Your task to perform on an android device: Search for "macbook" on ebay.com, select the first entry, add it to the cart, then select checkout. Image 0: 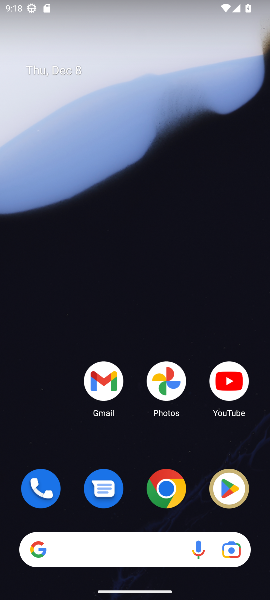
Step 0: drag from (115, 524) to (133, 135)
Your task to perform on an android device: Search for "macbook" on ebay.com, select the first entry, add it to the cart, then select checkout. Image 1: 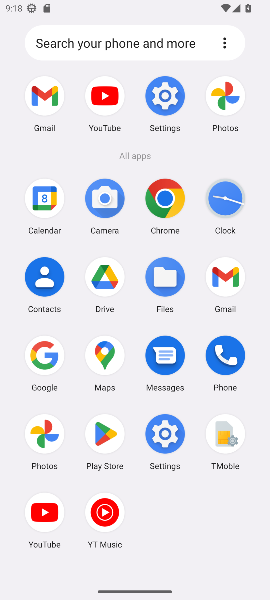
Step 1: click (42, 366)
Your task to perform on an android device: Search for "macbook" on ebay.com, select the first entry, add it to the cart, then select checkout. Image 2: 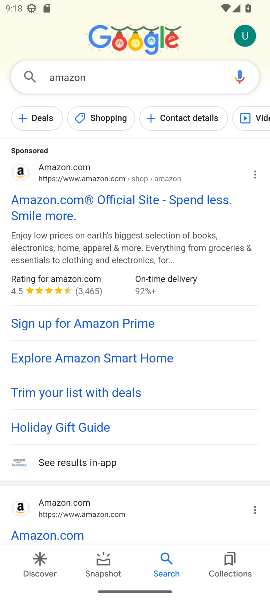
Step 2: click (85, 78)
Your task to perform on an android device: Search for "macbook" on ebay.com, select the first entry, add it to the cart, then select checkout. Image 3: 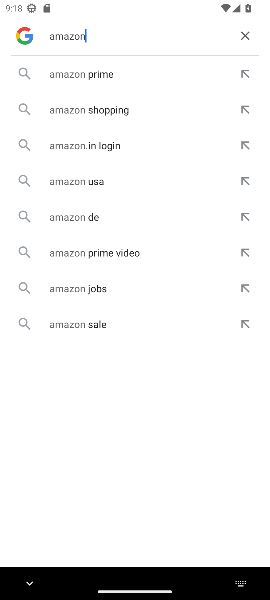
Step 3: click (248, 35)
Your task to perform on an android device: Search for "macbook" on ebay.com, select the first entry, add it to the cart, then select checkout. Image 4: 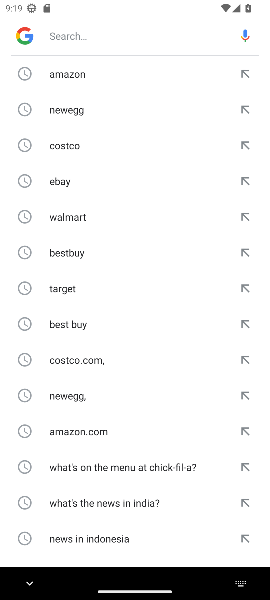
Step 4: click (60, 182)
Your task to perform on an android device: Search for "macbook" on ebay.com, select the first entry, add it to the cart, then select checkout. Image 5: 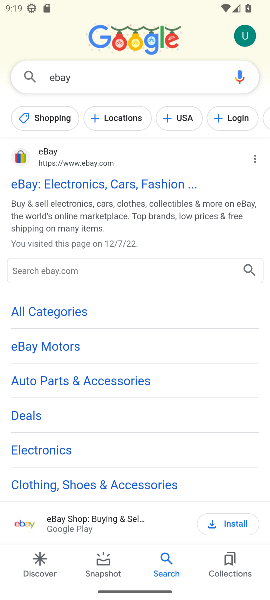
Step 5: click (65, 77)
Your task to perform on an android device: Search for "macbook" on ebay.com, select the first entry, add it to the cart, then select checkout. Image 6: 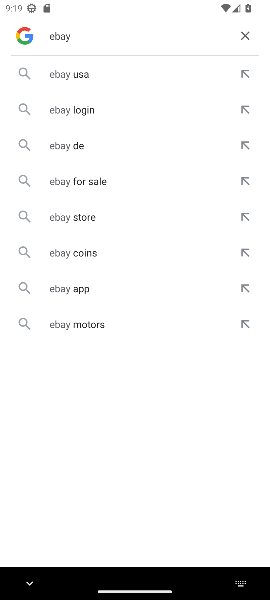
Step 6: click (245, 41)
Your task to perform on an android device: Search for "macbook" on ebay.com, select the first entry, add it to the cart, then select checkout. Image 7: 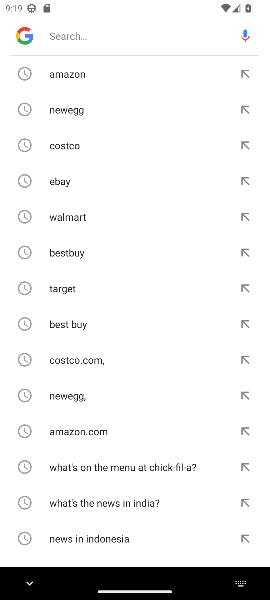
Step 7: click (62, 183)
Your task to perform on an android device: Search for "macbook" on ebay.com, select the first entry, add it to the cart, then select checkout. Image 8: 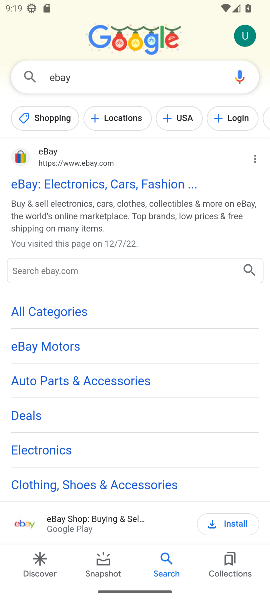
Step 8: click (62, 183)
Your task to perform on an android device: Search for "macbook" on ebay.com, select the first entry, add it to the cart, then select checkout. Image 9: 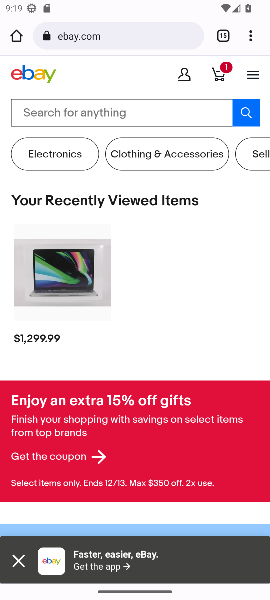
Step 9: click (62, 107)
Your task to perform on an android device: Search for "macbook" on ebay.com, select the first entry, add it to the cart, then select checkout. Image 10: 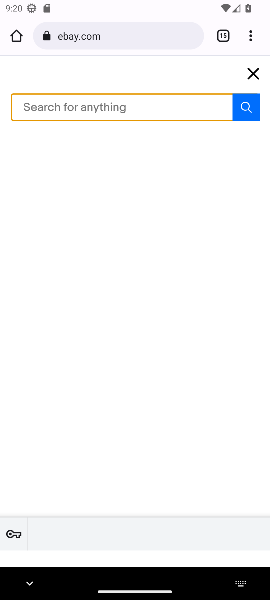
Step 10: type "macbook"
Your task to perform on an android device: Search for "macbook" on ebay.com, select the first entry, add it to the cart, then select checkout. Image 11: 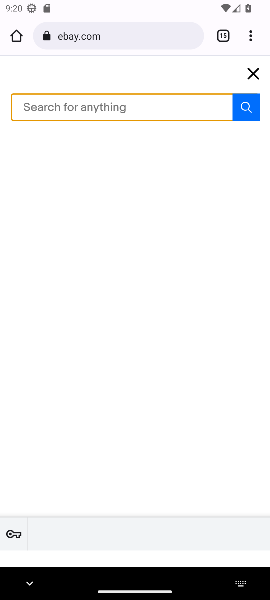
Step 11: click (239, 105)
Your task to perform on an android device: Search for "macbook" on ebay.com, select the first entry, add it to the cart, then select checkout. Image 12: 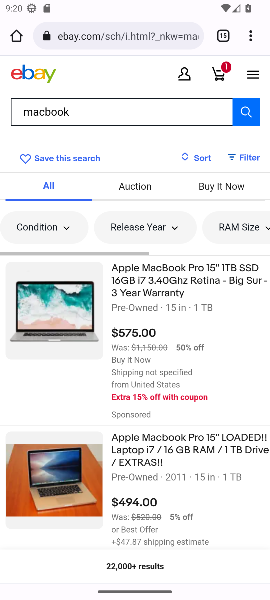
Step 12: click (150, 273)
Your task to perform on an android device: Search for "macbook" on ebay.com, select the first entry, add it to the cart, then select checkout. Image 13: 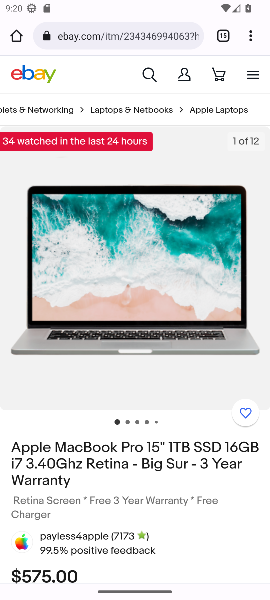
Step 13: drag from (192, 528) to (160, 243)
Your task to perform on an android device: Search for "macbook" on ebay.com, select the first entry, add it to the cart, then select checkout. Image 14: 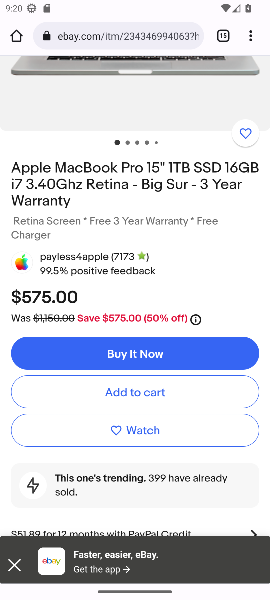
Step 14: click (115, 391)
Your task to perform on an android device: Search for "macbook" on ebay.com, select the first entry, add it to the cart, then select checkout. Image 15: 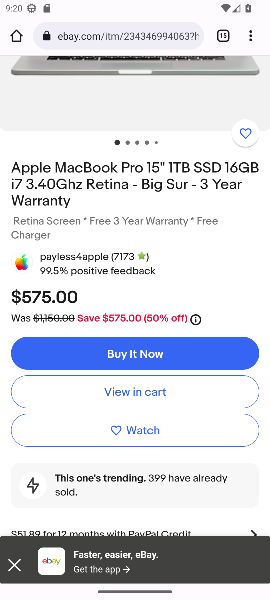
Step 15: drag from (151, 105) to (179, 419)
Your task to perform on an android device: Search for "macbook" on ebay.com, select the first entry, add it to the cart, then select checkout. Image 16: 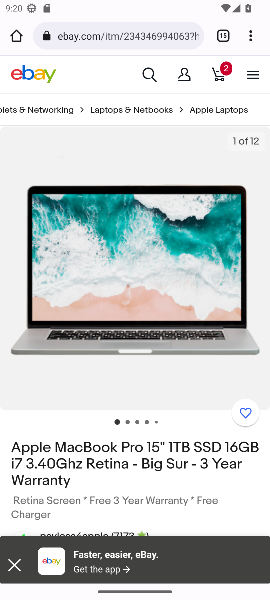
Step 16: click (223, 71)
Your task to perform on an android device: Search for "macbook" on ebay.com, select the first entry, add it to the cart, then select checkout. Image 17: 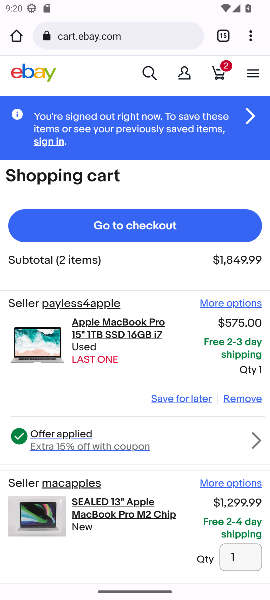
Step 17: click (118, 231)
Your task to perform on an android device: Search for "macbook" on ebay.com, select the first entry, add it to the cart, then select checkout. Image 18: 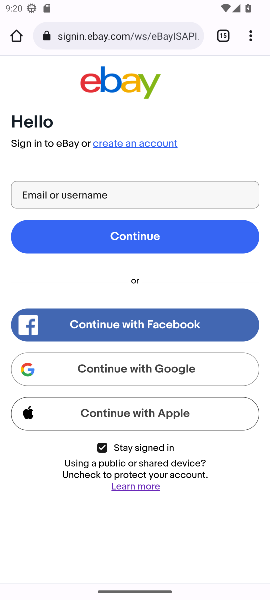
Step 18: task complete